Your task to perform on an android device: open app "Speedtest by Ookla" (install if not already installed) Image 0: 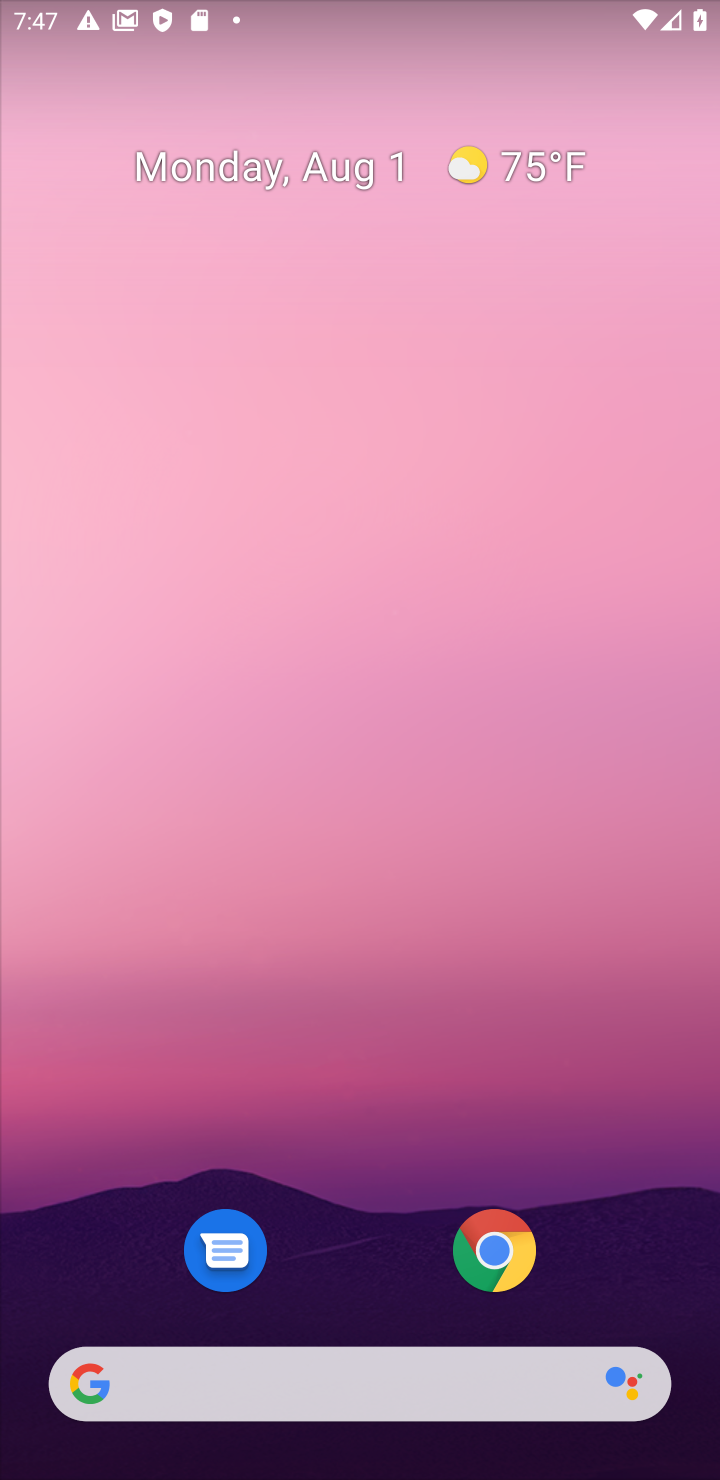
Step 0: drag from (532, 1073) to (453, 218)
Your task to perform on an android device: open app "Speedtest by Ookla" (install if not already installed) Image 1: 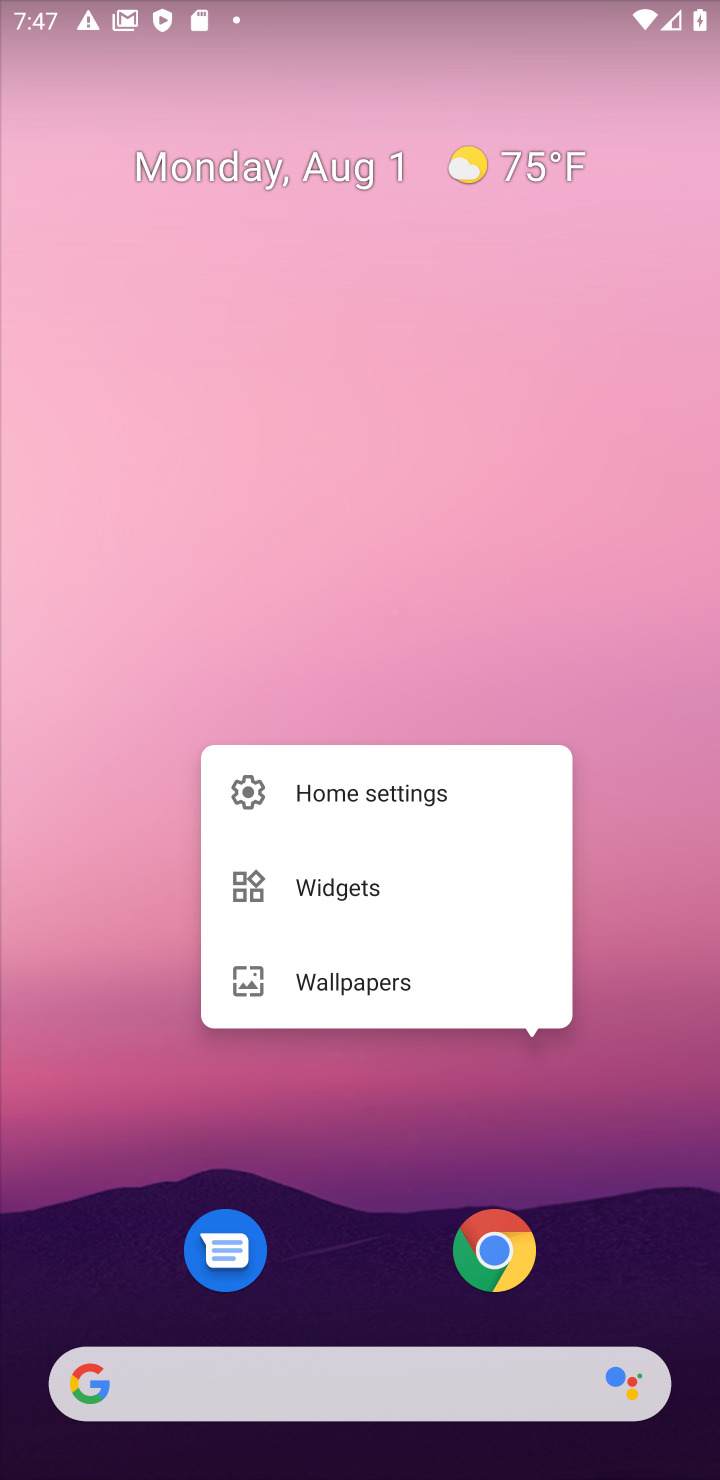
Step 1: click (646, 1011)
Your task to perform on an android device: open app "Speedtest by Ookla" (install if not already installed) Image 2: 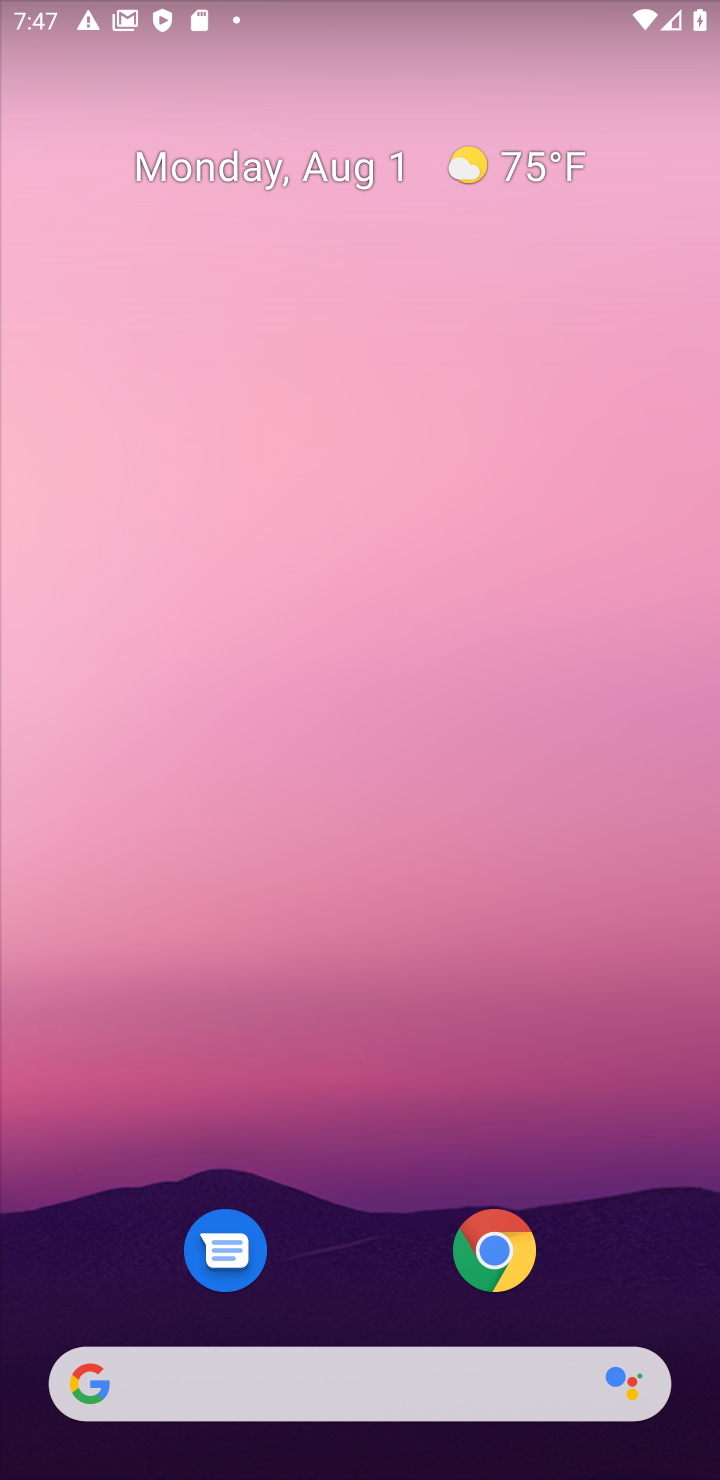
Step 2: drag from (666, 1061) to (552, 333)
Your task to perform on an android device: open app "Speedtest by Ookla" (install if not already installed) Image 3: 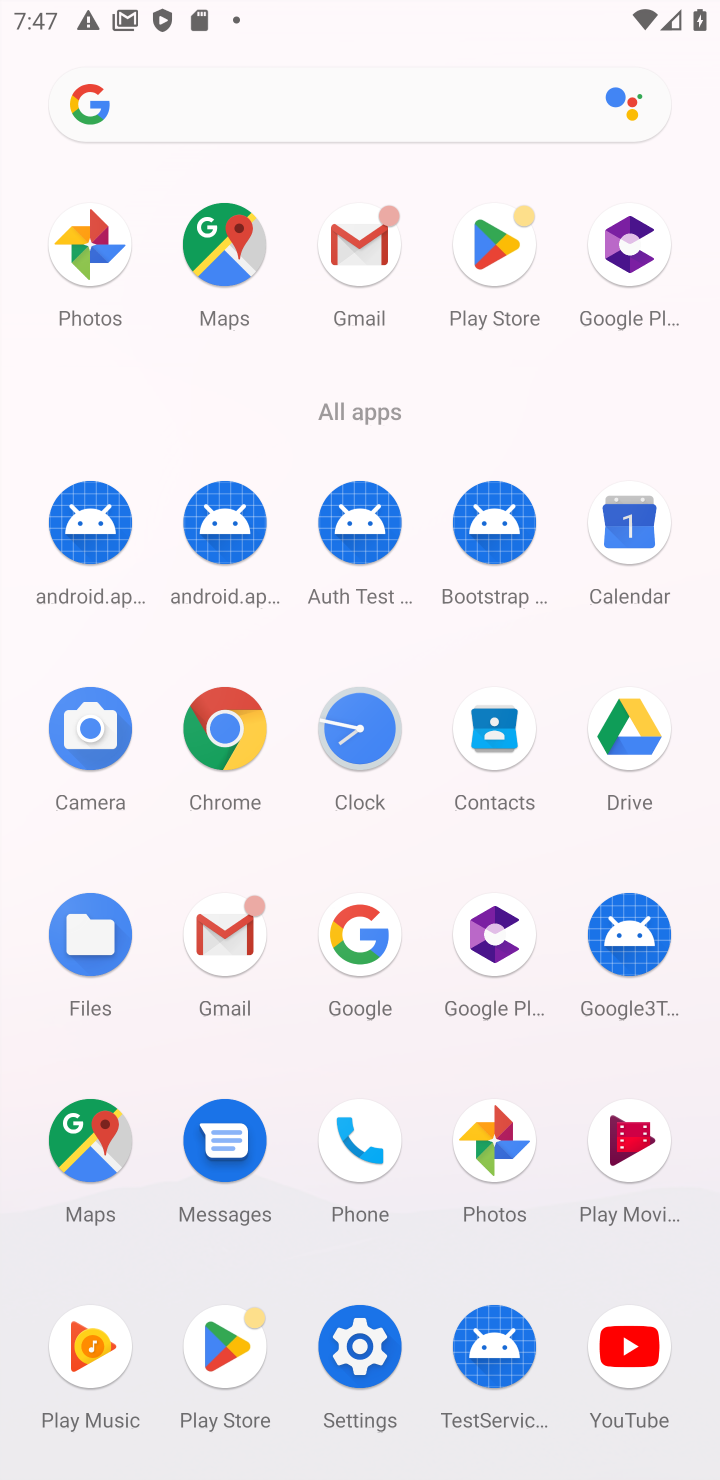
Step 3: click (224, 1316)
Your task to perform on an android device: open app "Speedtest by Ookla" (install if not already installed) Image 4: 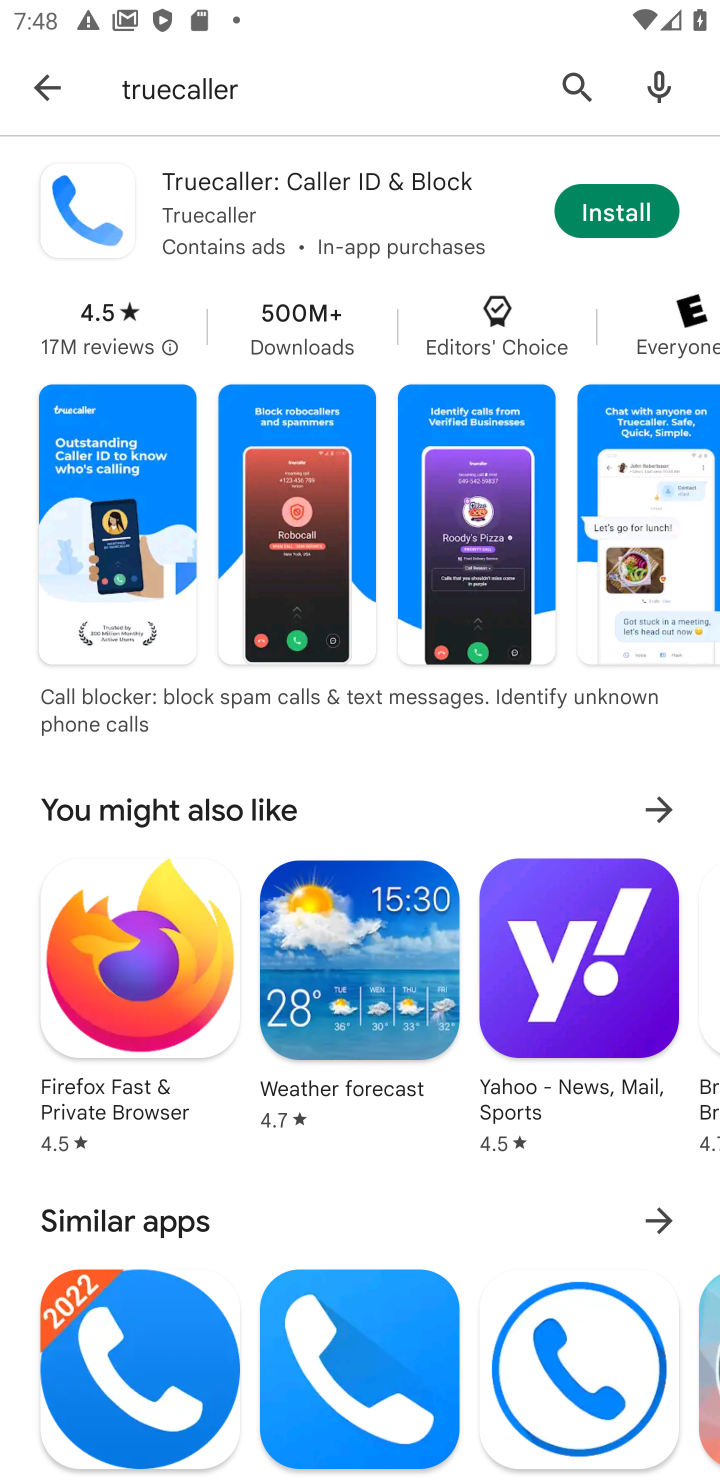
Step 4: click (562, 84)
Your task to perform on an android device: open app "Speedtest by Ookla" (install if not already installed) Image 5: 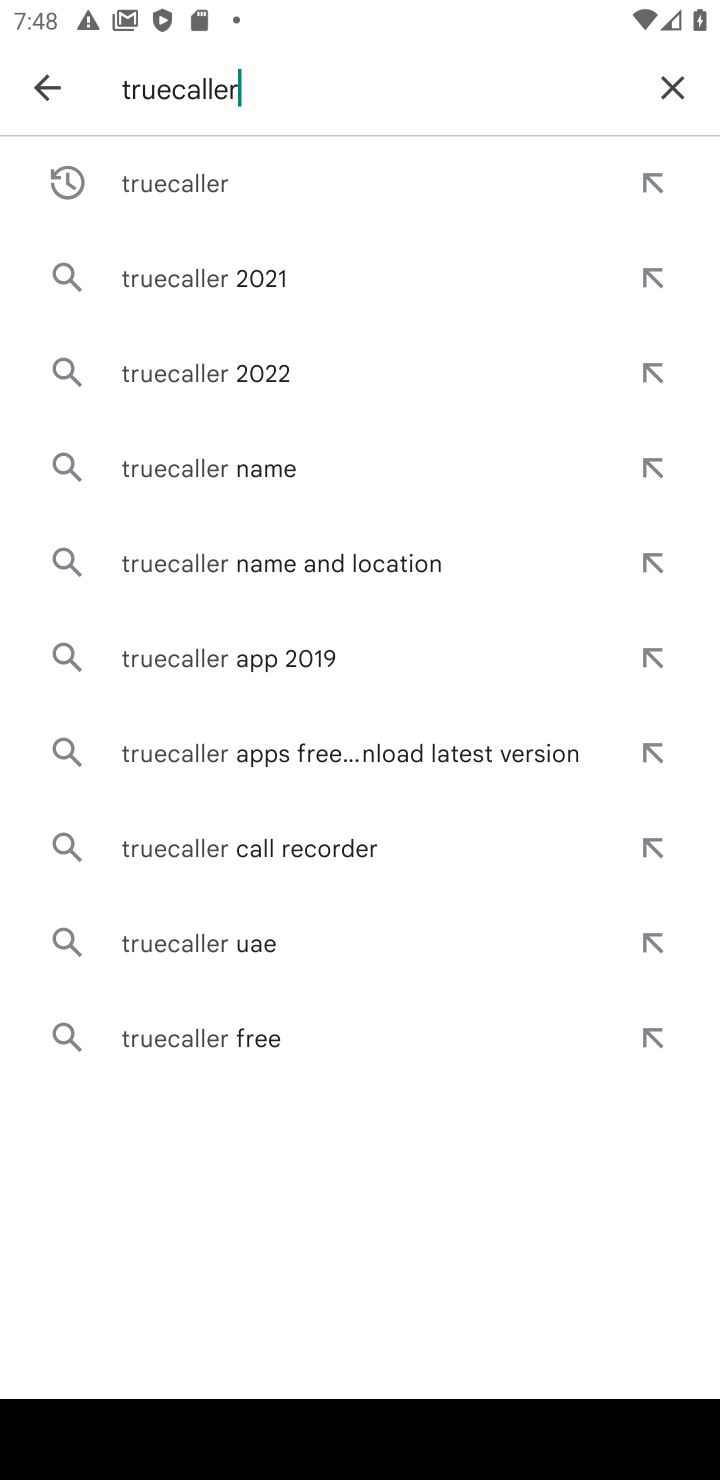
Step 5: click (666, 86)
Your task to perform on an android device: open app "Speedtest by Ookla" (install if not already installed) Image 6: 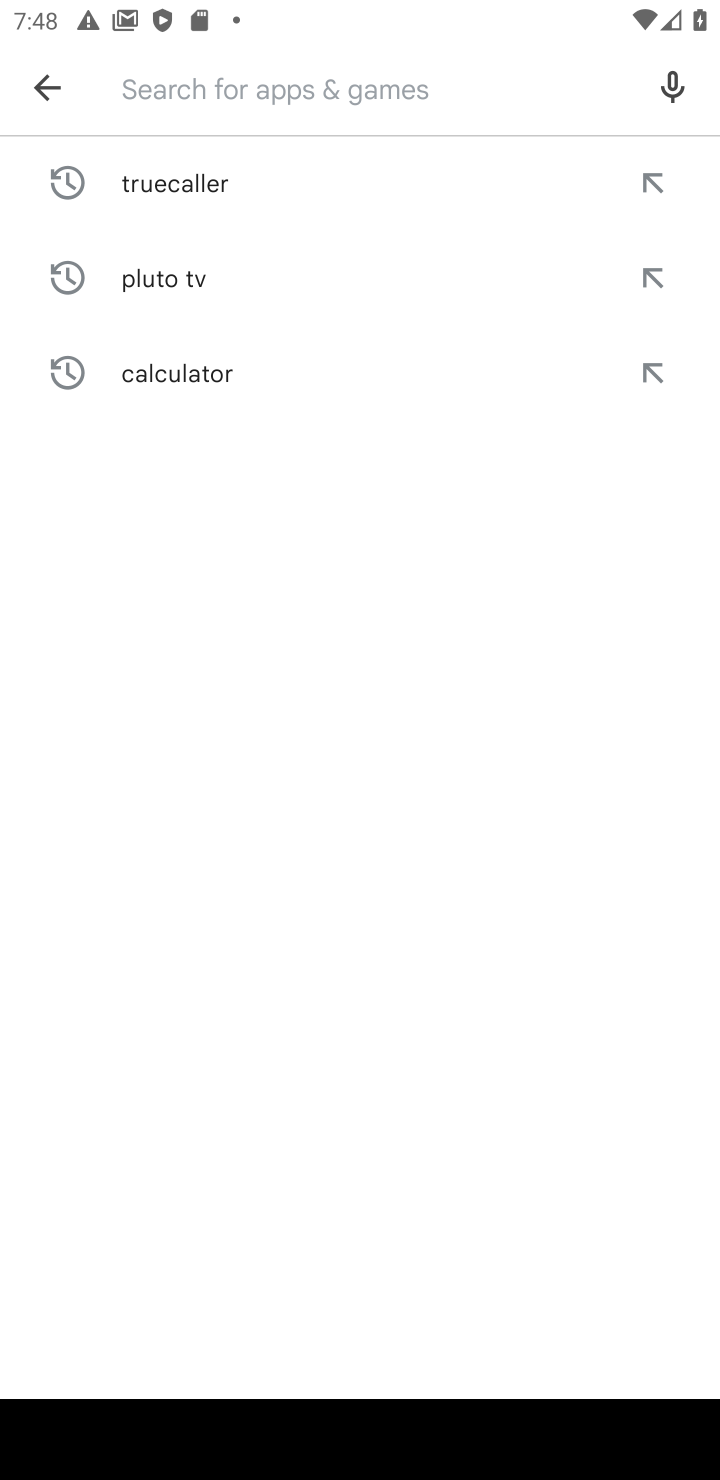
Step 6: type "speedtest by ookla"
Your task to perform on an android device: open app "Speedtest by Ookla" (install if not already installed) Image 7: 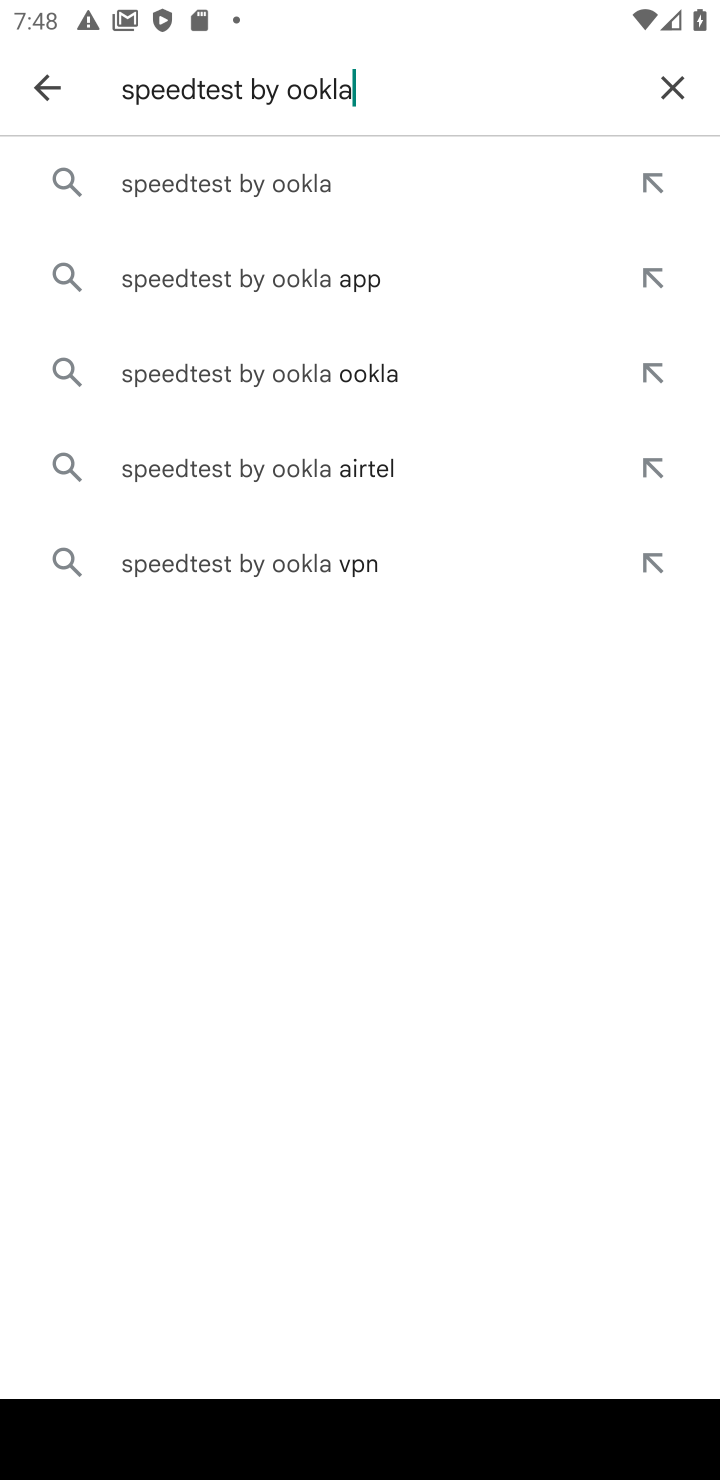
Step 7: click (248, 168)
Your task to perform on an android device: open app "Speedtest by Ookla" (install if not already installed) Image 8: 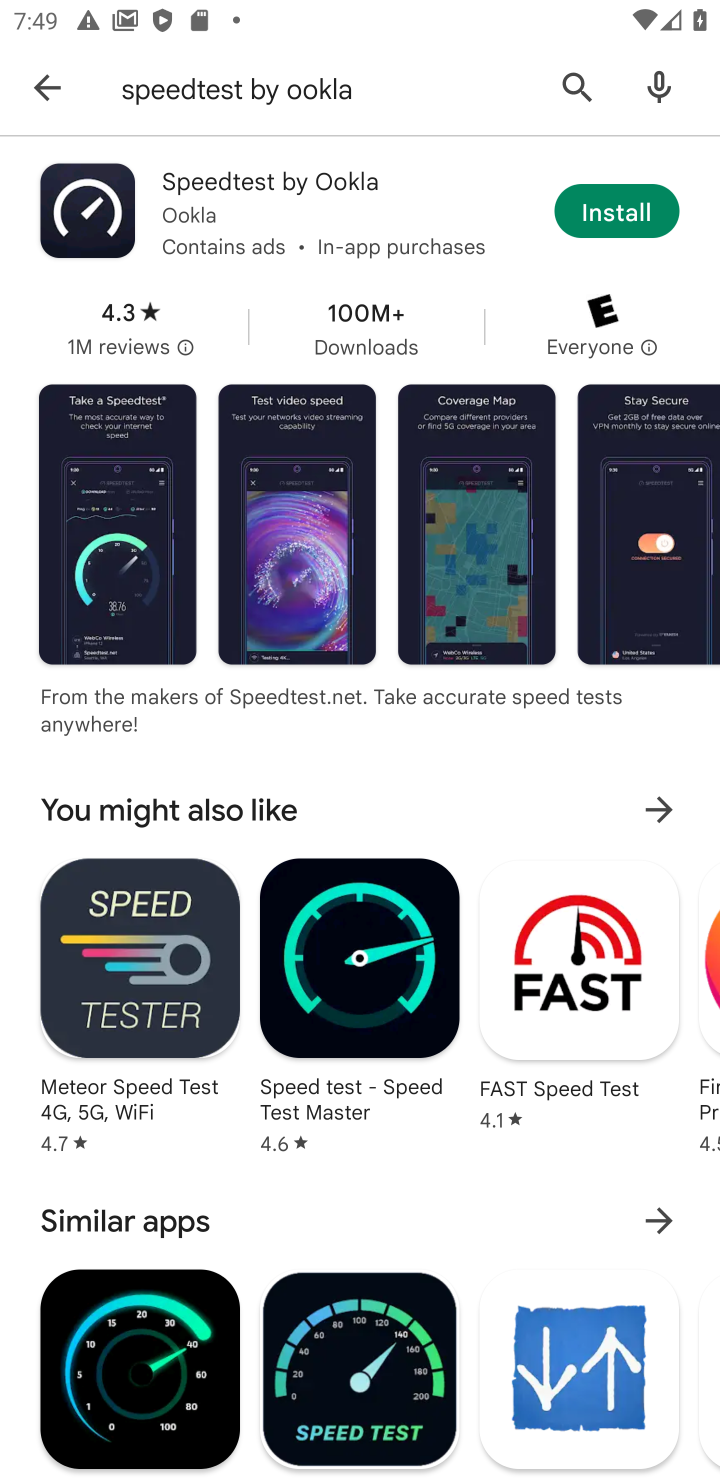
Step 8: click (605, 210)
Your task to perform on an android device: open app "Speedtest by Ookla" (install if not already installed) Image 9: 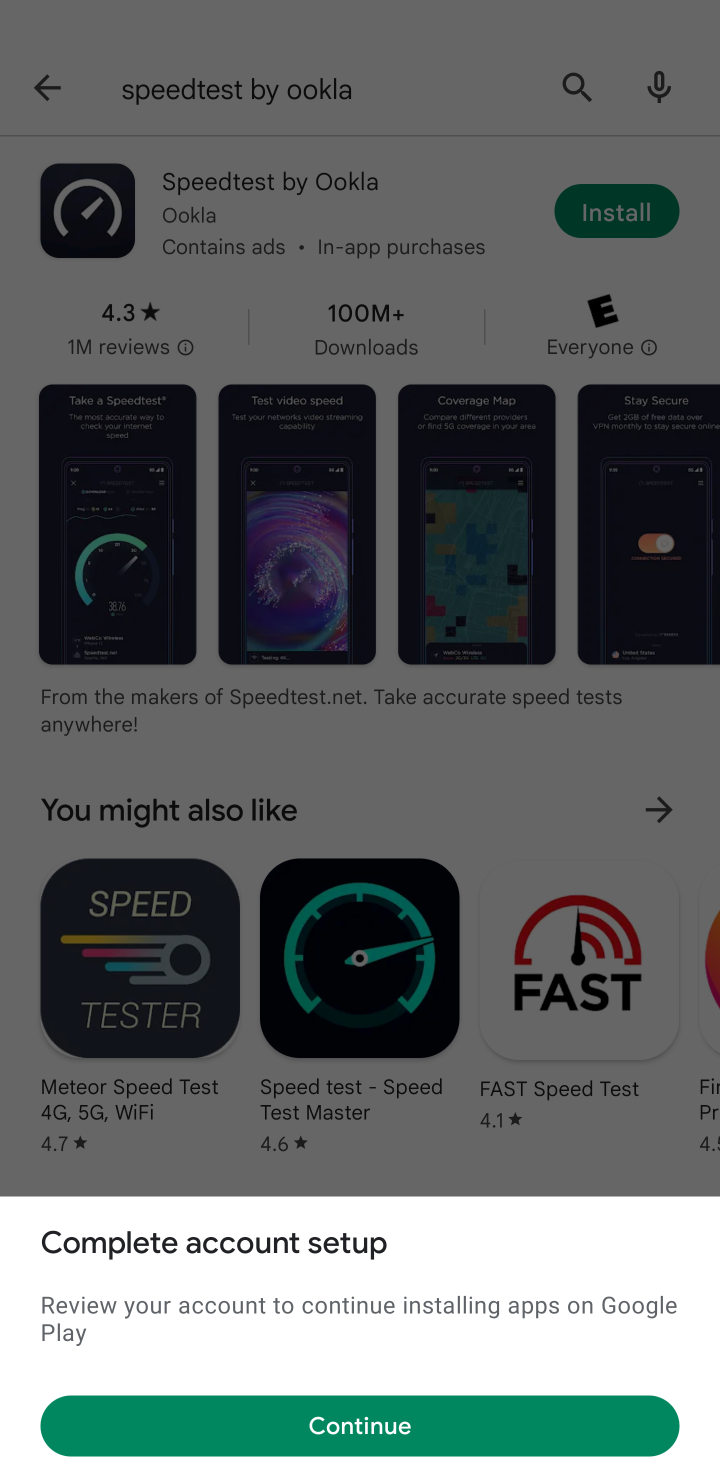
Step 9: click (223, 1408)
Your task to perform on an android device: open app "Speedtest by Ookla" (install if not already installed) Image 10: 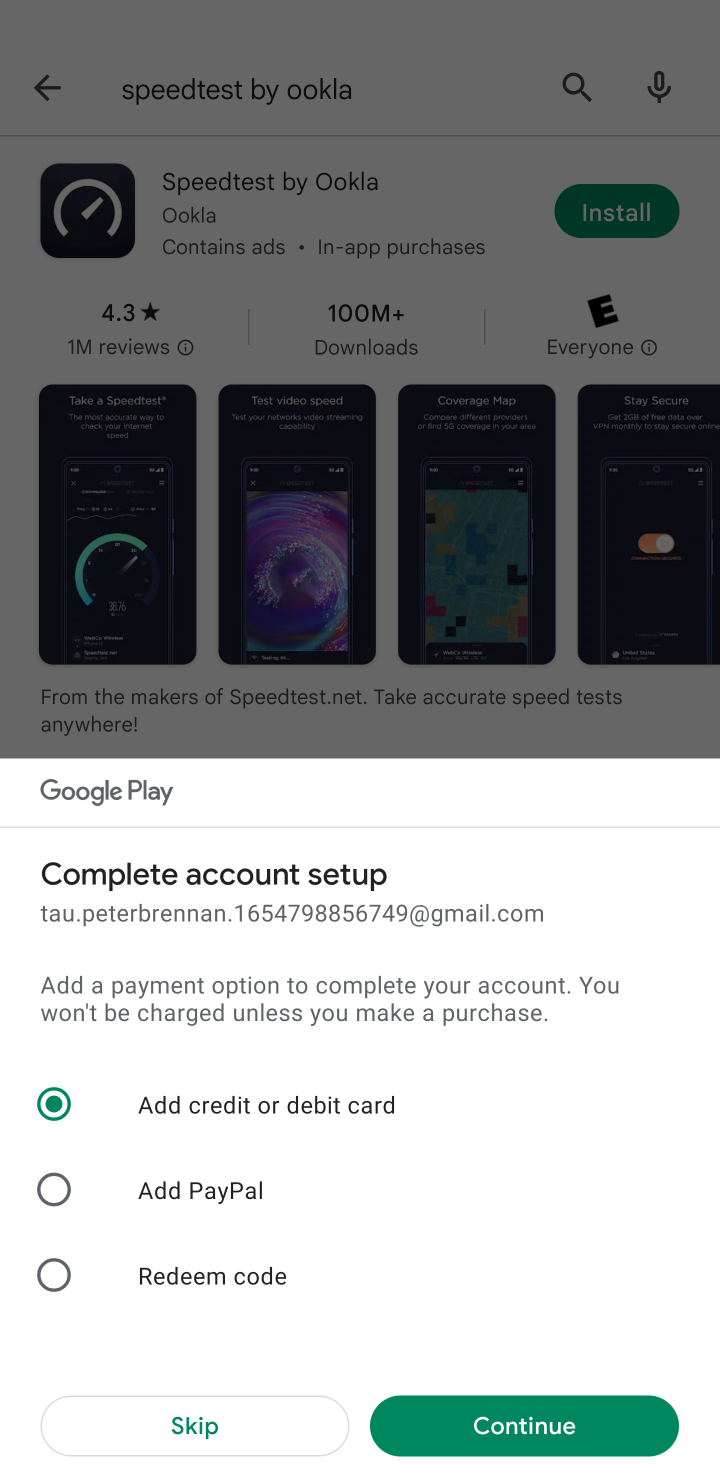
Step 10: click (221, 1408)
Your task to perform on an android device: open app "Speedtest by Ookla" (install if not already installed) Image 11: 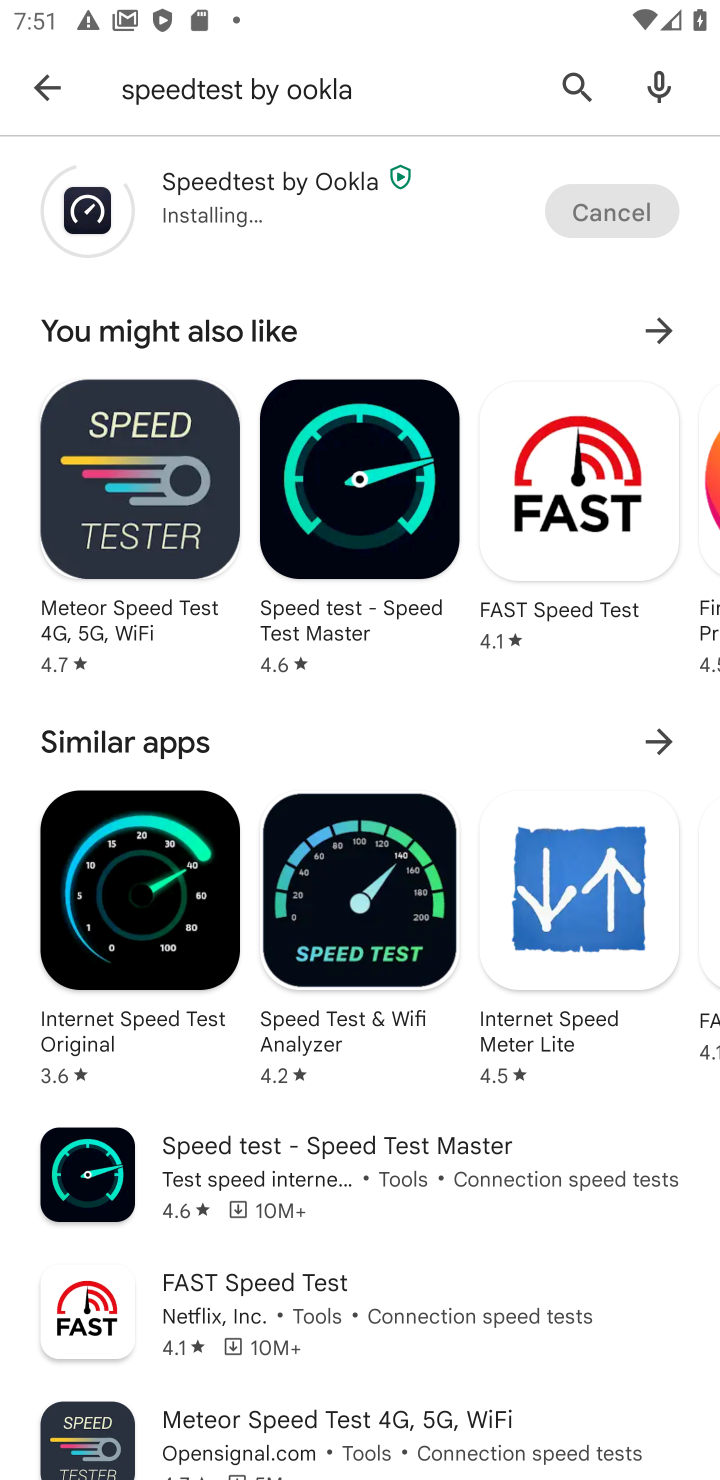
Step 11: drag from (431, 237) to (420, 310)
Your task to perform on an android device: open app "Speedtest by Ookla" (install if not already installed) Image 12: 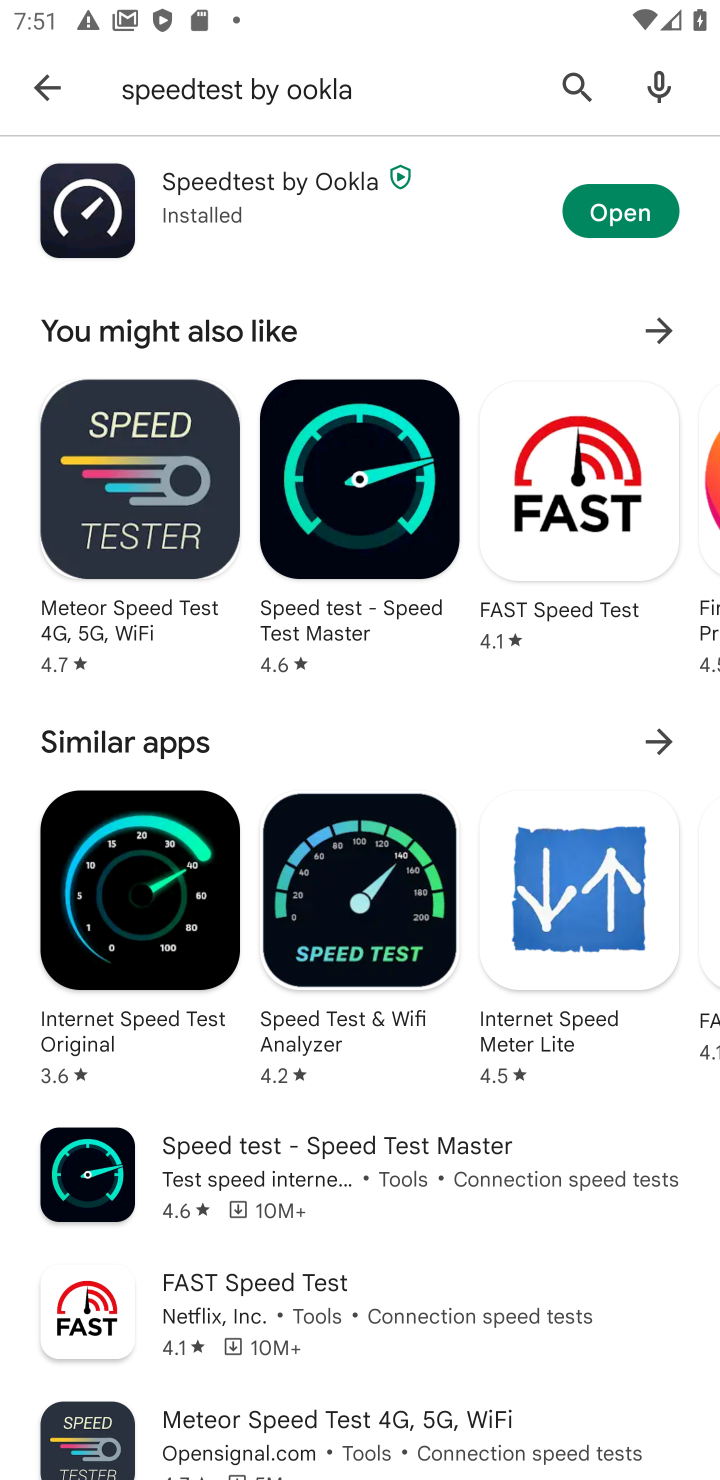
Step 12: click (605, 204)
Your task to perform on an android device: open app "Speedtest by Ookla" (install if not already installed) Image 13: 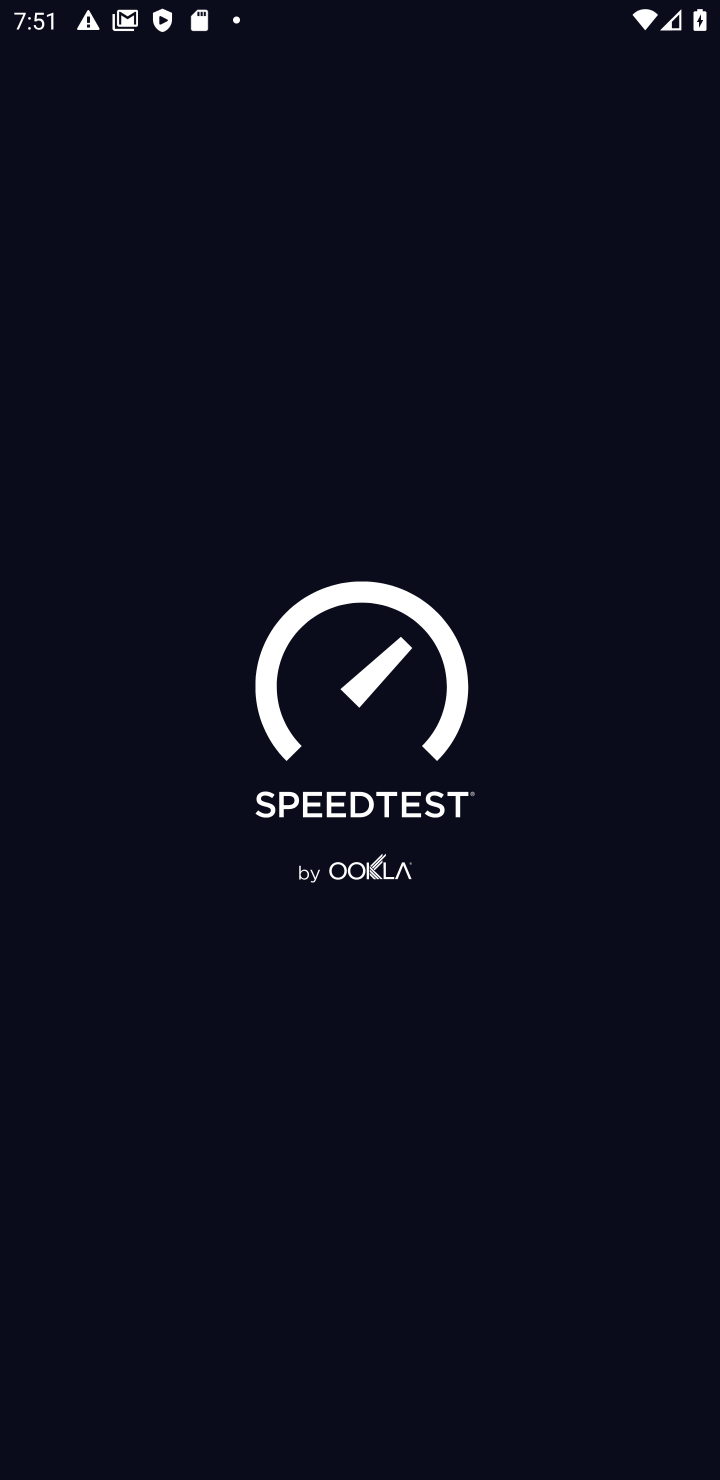
Step 13: task complete